Your task to perform on an android device: Empty the shopping cart on amazon.com. Add razer blackwidow to the cart on amazon.com, then select checkout. Image 0: 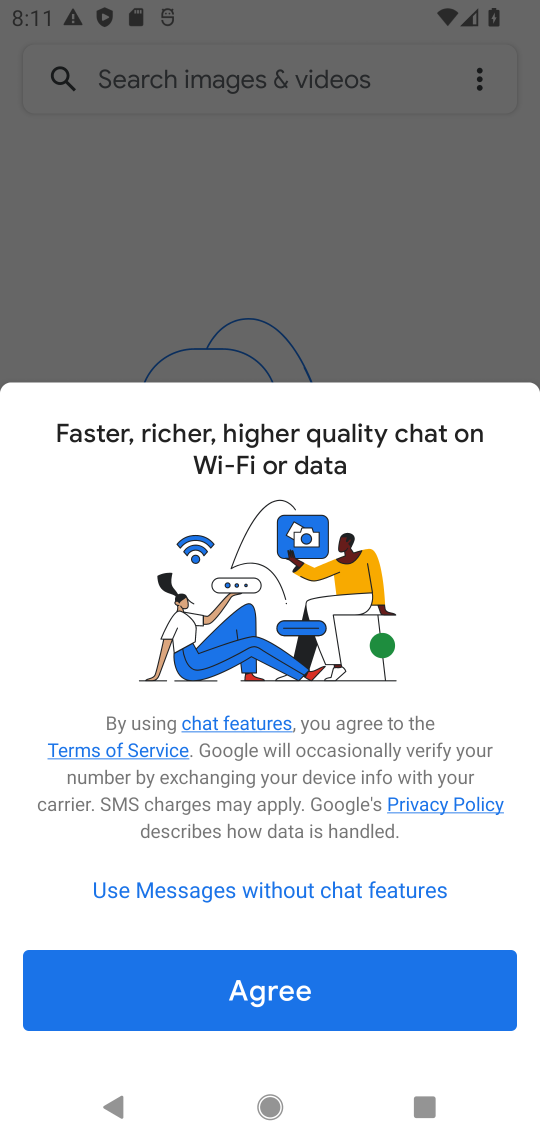
Step 0: press home button
Your task to perform on an android device: Empty the shopping cart on amazon.com. Add razer blackwidow to the cart on amazon.com, then select checkout. Image 1: 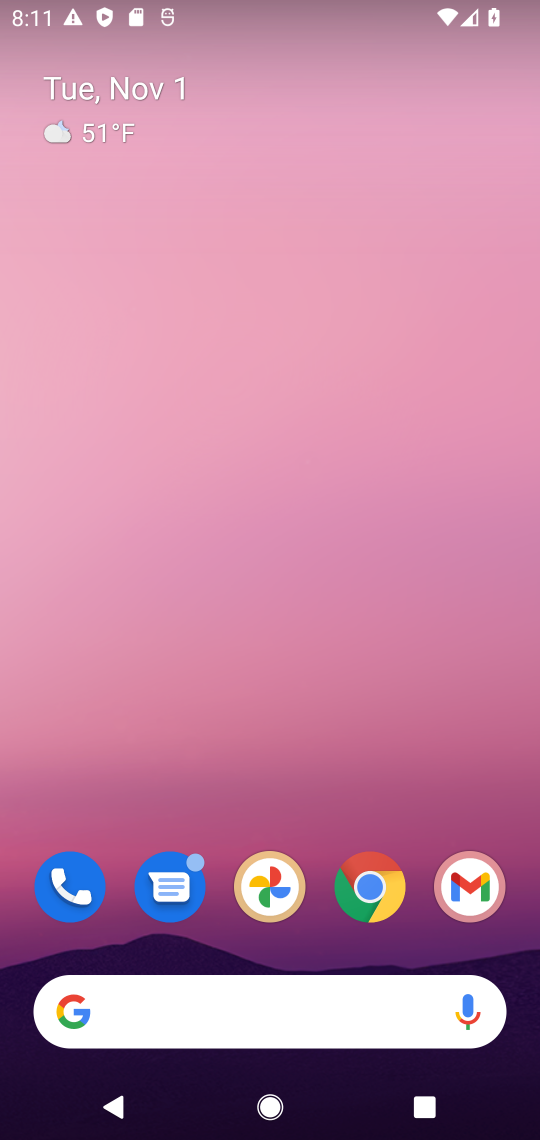
Step 1: drag from (260, 879) to (248, 209)
Your task to perform on an android device: Empty the shopping cart on amazon.com. Add razer blackwidow to the cart on amazon.com, then select checkout. Image 2: 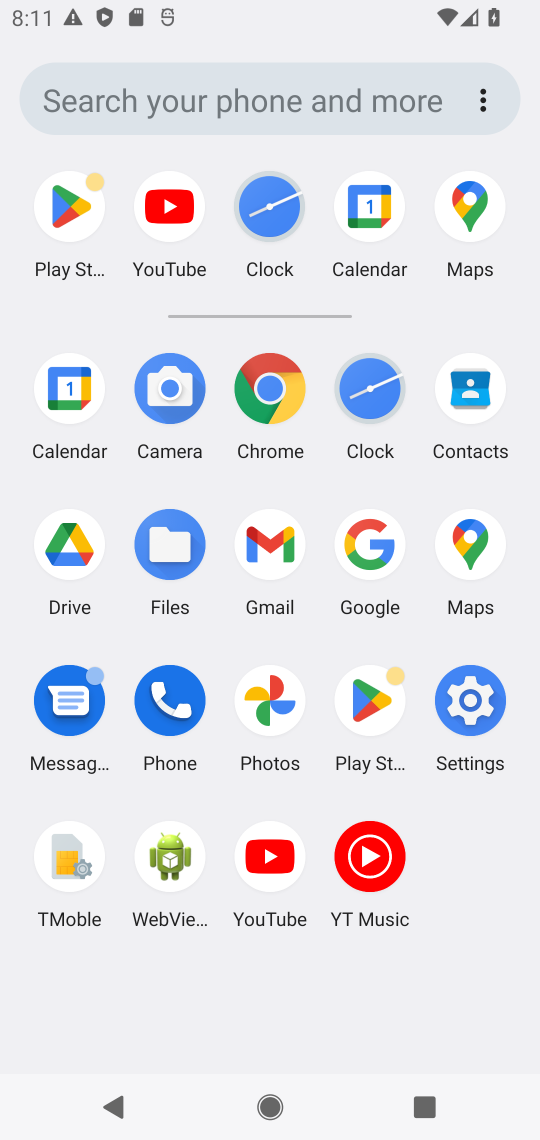
Step 2: click (373, 548)
Your task to perform on an android device: Empty the shopping cart on amazon.com. Add razer blackwidow to the cart on amazon.com, then select checkout. Image 3: 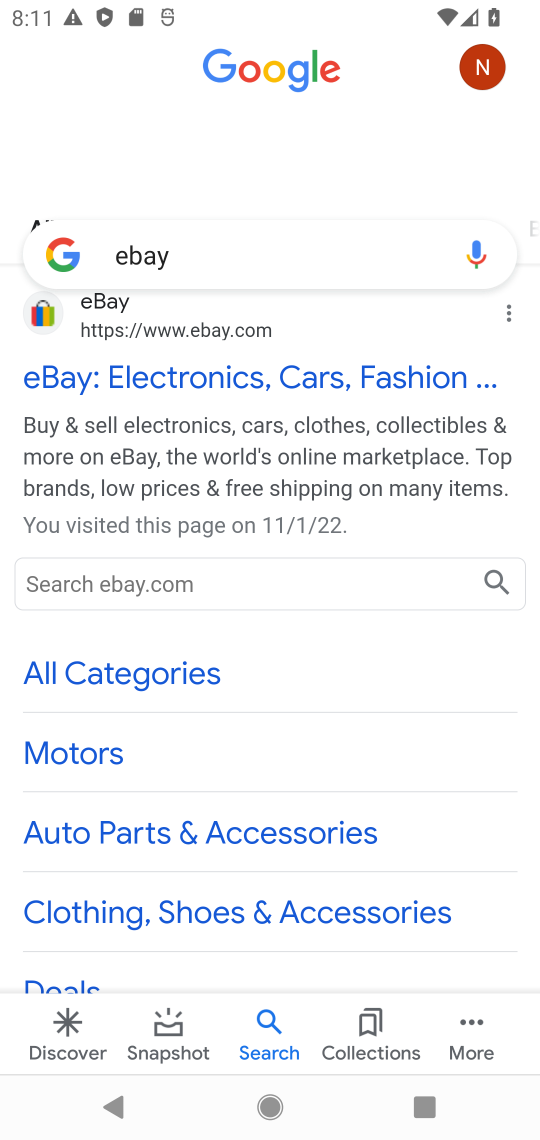
Step 3: click (234, 231)
Your task to perform on an android device: Empty the shopping cart on amazon.com. Add razer blackwidow to the cart on amazon.com, then select checkout. Image 4: 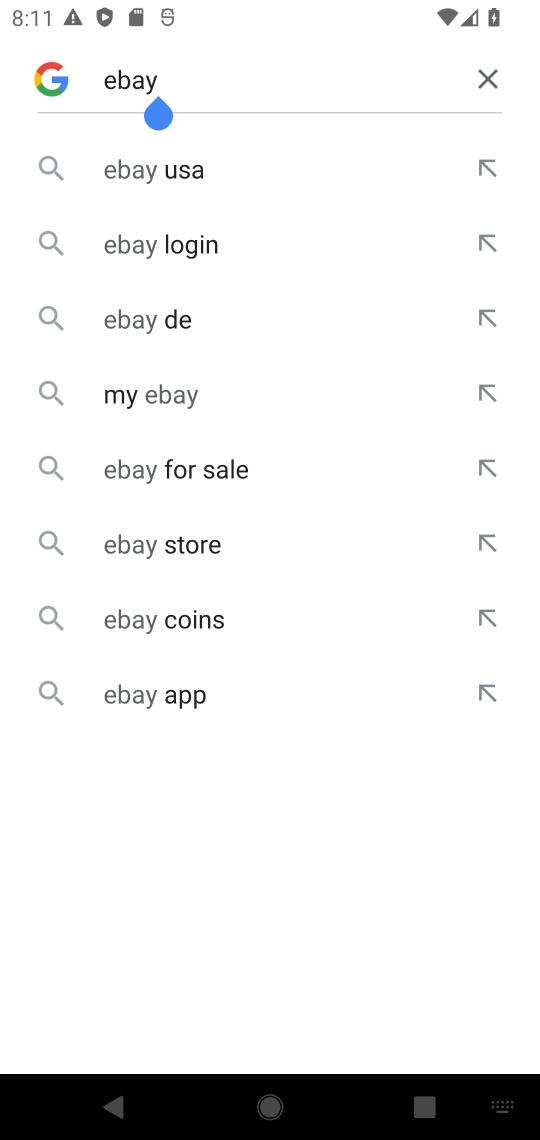
Step 4: click (473, 76)
Your task to perform on an android device: Empty the shopping cart on amazon.com. Add razer blackwidow to the cart on amazon.com, then select checkout. Image 5: 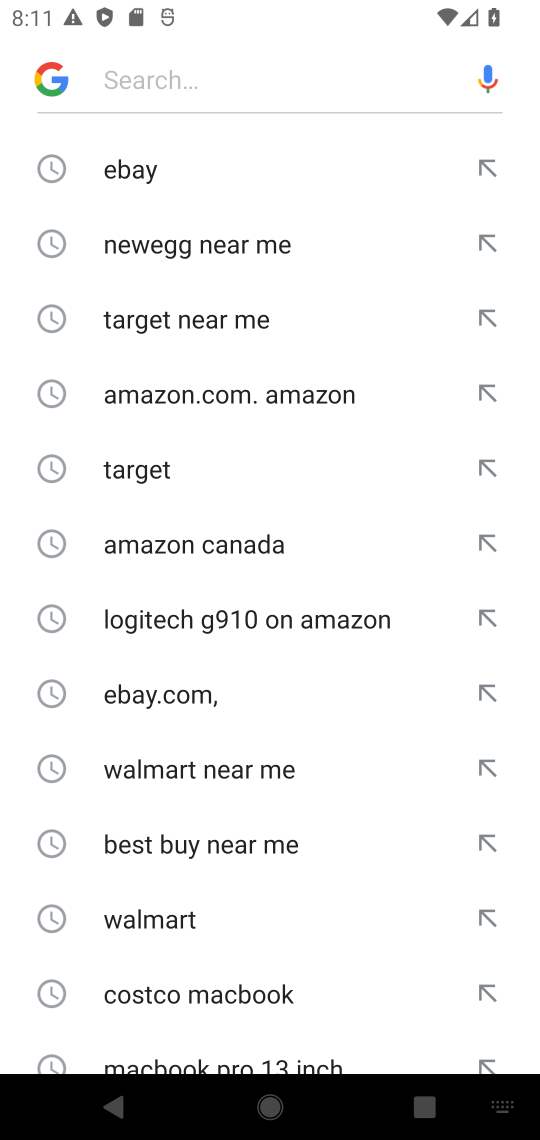
Step 5: click (188, 79)
Your task to perform on an android device: Empty the shopping cart on amazon.com. Add razer blackwidow to the cart on amazon.com, then select checkout. Image 6: 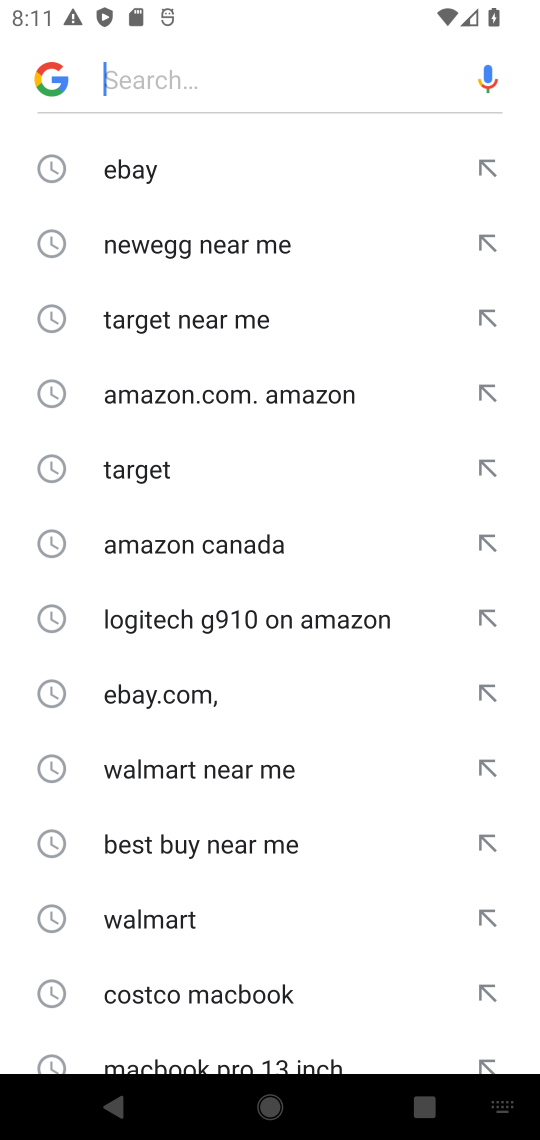
Step 6: type "amazon.com "
Your task to perform on an android device: Empty the shopping cart on amazon.com. Add razer blackwidow to the cart on amazon.com, then select checkout. Image 7: 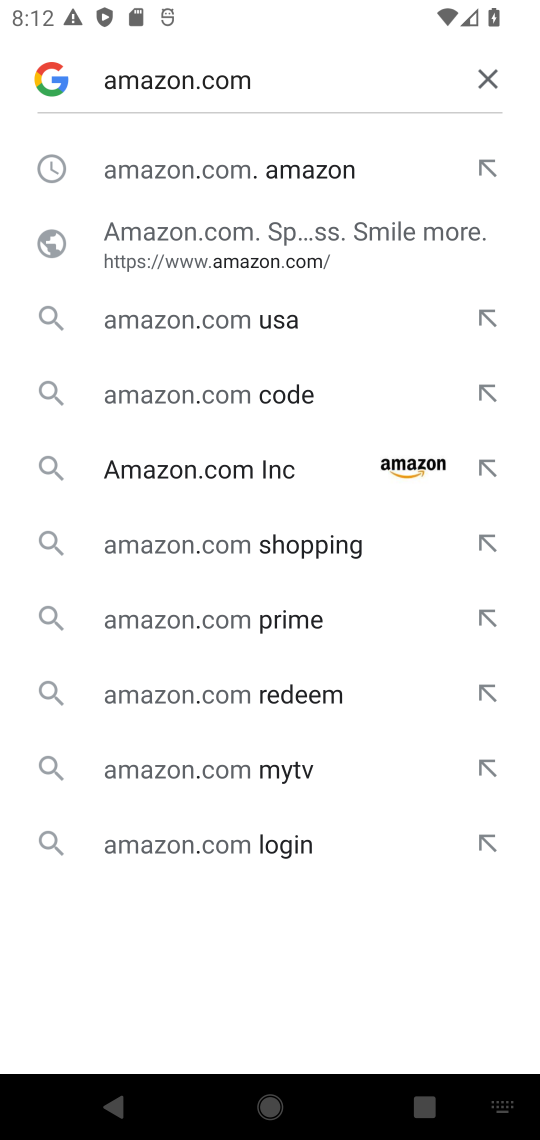
Step 7: click (181, 174)
Your task to perform on an android device: Empty the shopping cart on amazon.com. Add razer blackwidow to the cart on amazon.com, then select checkout. Image 8: 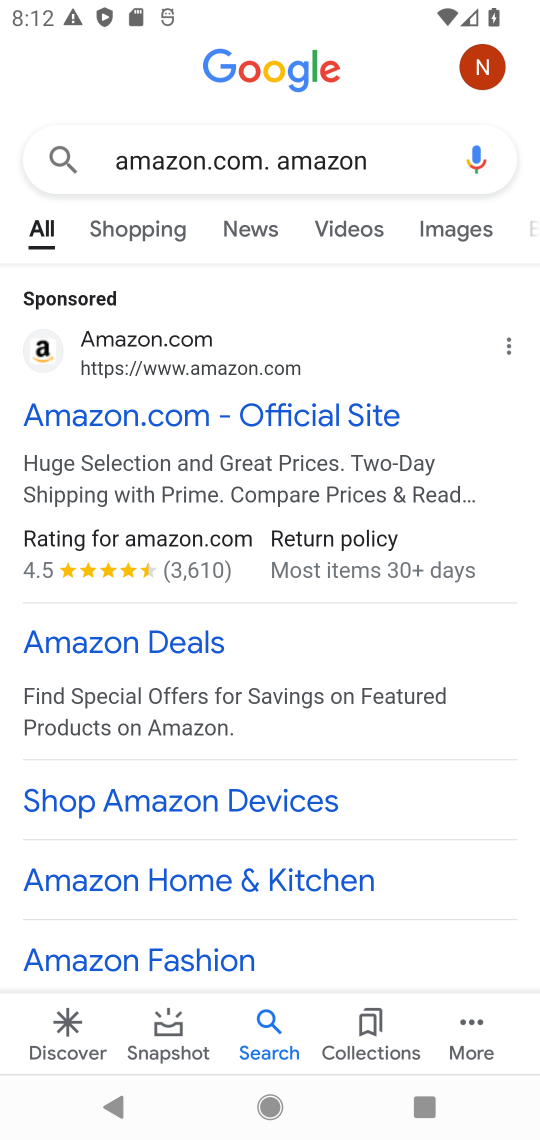
Step 8: click (201, 414)
Your task to perform on an android device: Empty the shopping cart on amazon.com. Add razer blackwidow to the cart on amazon.com, then select checkout. Image 9: 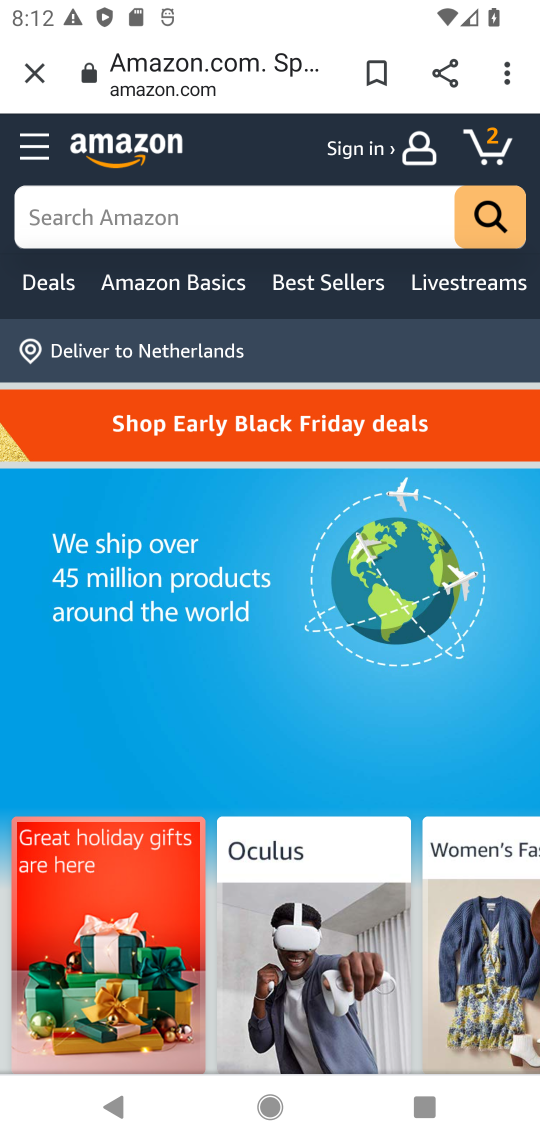
Step 9: click (199, 194)
Your task to perform on an android device: Empty the shopping cart on amazon.com. Add razer blackwidow to the cart on amazon.com, then select checkout. Image 10: 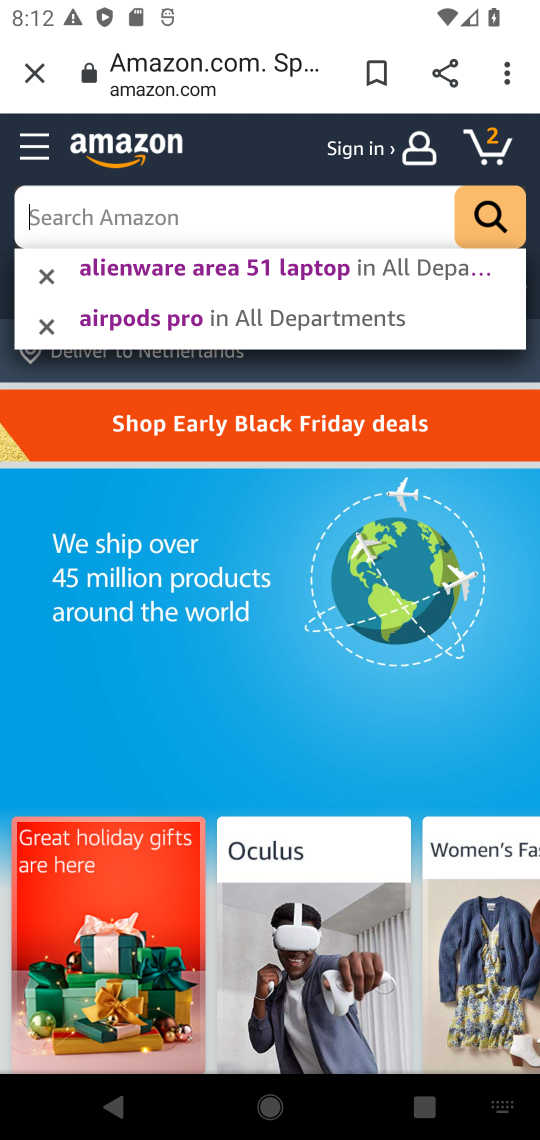
Step 10: type "razer blackwidow  "
Your task to perform on an android device: Empty the shopping cart on amazon.com. Add razer blackwidow to the cart on amazon.com, then select checkout. Image 11: 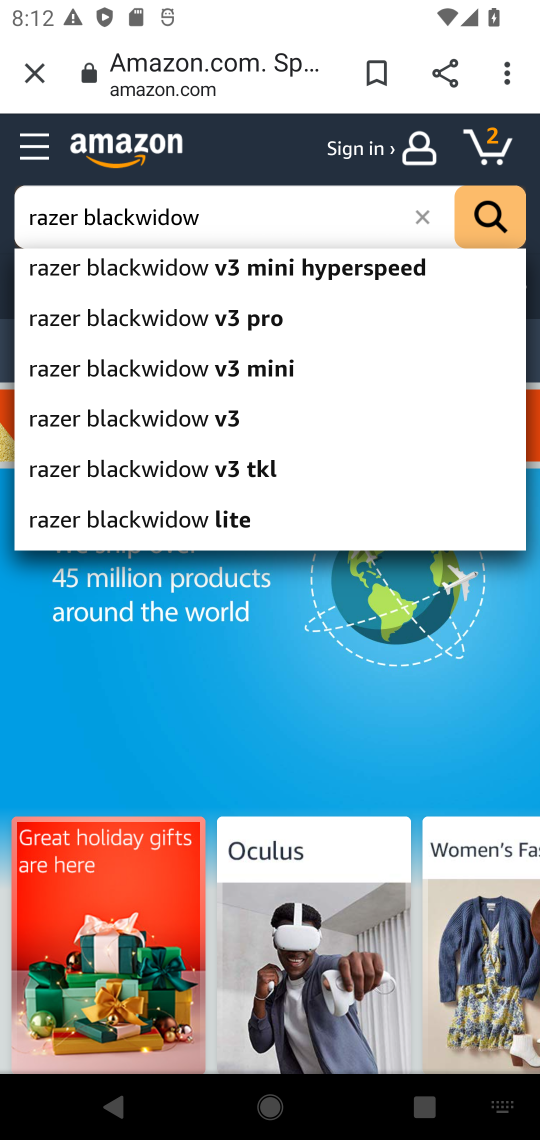
Step 11: click (291, 256)
Your task to perform on an android device: Empty the shopping cart on amazon.com. Add razer blackwidow to the cart on amazon.com, then select checkout. Image 12: 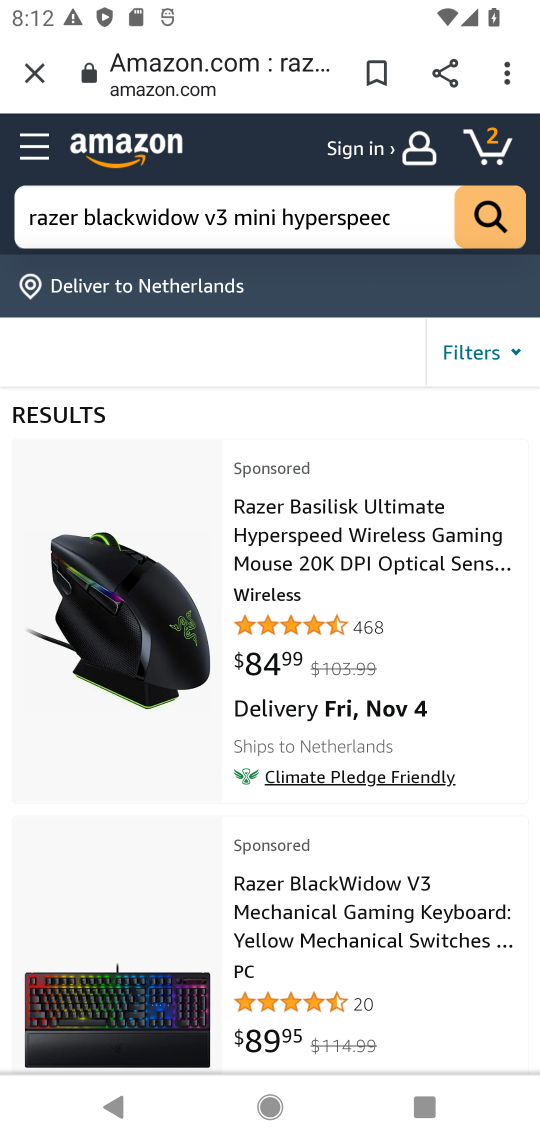
Step 12: drag from (326, 936) to (352, 800)
Your task to perform on an android device: Empty the shopping cart on amazon.com. Add razer blackwidow to the cart on amazon.com, then select checkout. Image 13: 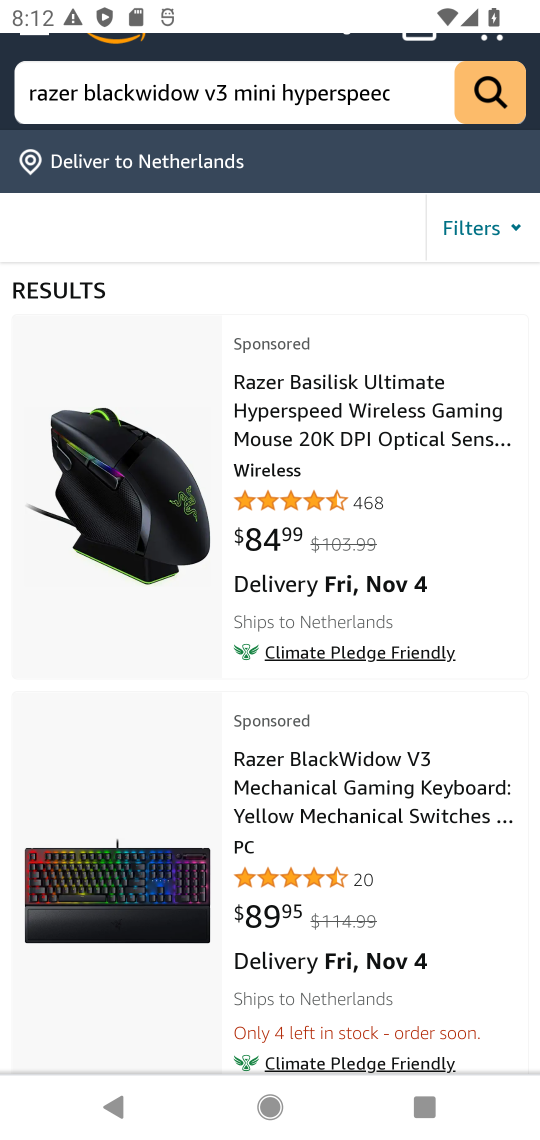
Step 13: click (289, 757)
Your task to perform on an android device: Empty the shopping cart on amazon.com. Add razer blackwidow to the cart on amazon.com, then select checkout. Image 14: 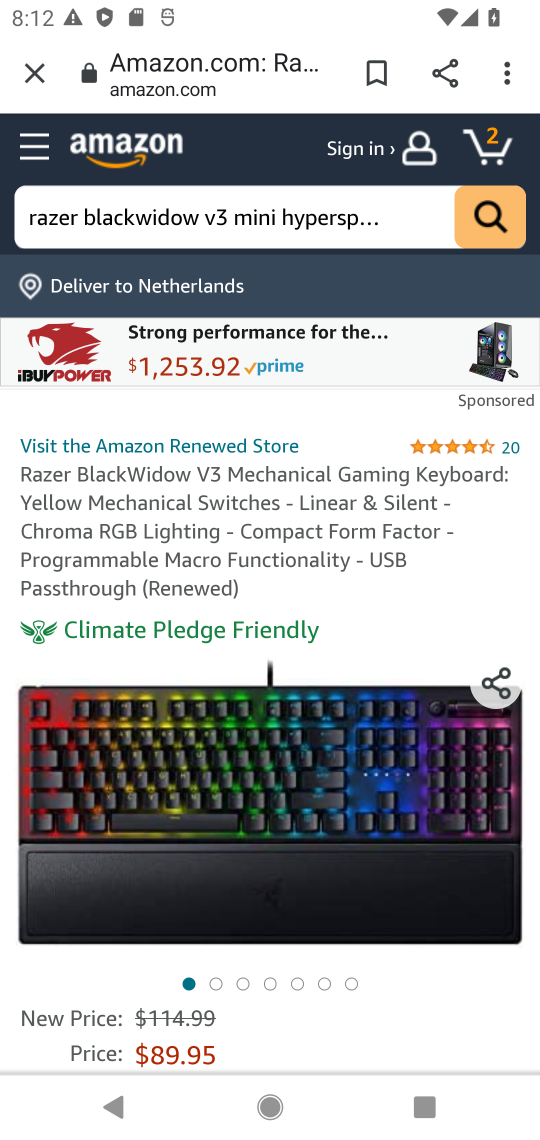
Step 14: drag from (272, 985) to (295, 437)
Your task to perform on an android device: Empty the shopping cart on amazon.com. Add razer blackwidow to the cart on amazon.com, then select checkout. Image 15: 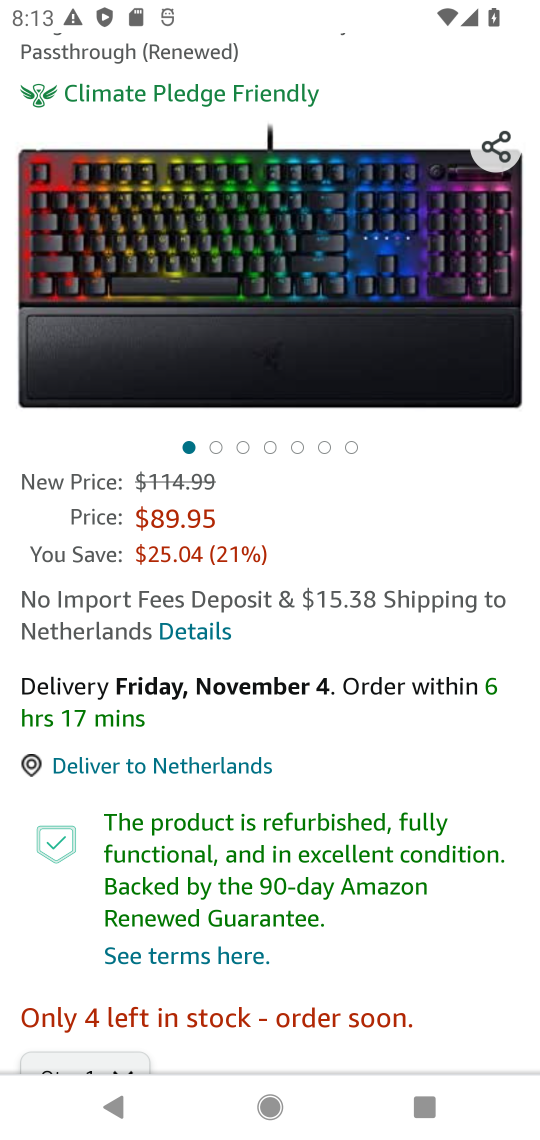
Step 15: drag from (214, 970) to (251, 392)
Your task to perform on an android device: Empty the shopping cart on amazon.com. Add razer blackwidow to the cart on amazon.com, then select checkout. Image 16: 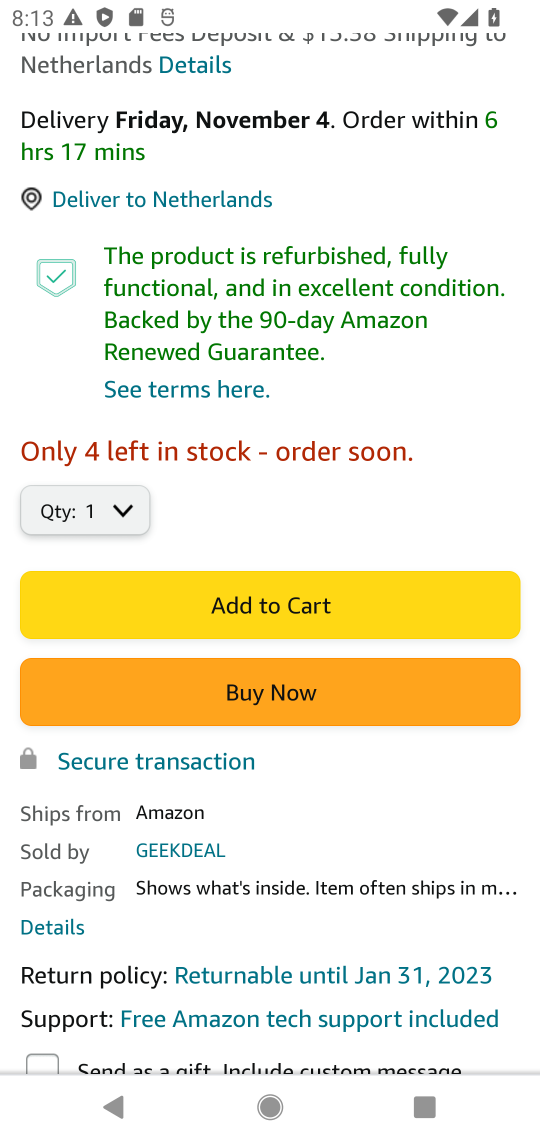
Step 16: click (292, 612)
Your task to perform on an android device: Empty the shopping cart on amazon.com. Add razer blackwidow to the cart on amazon.com, then select checkout. Image 17: 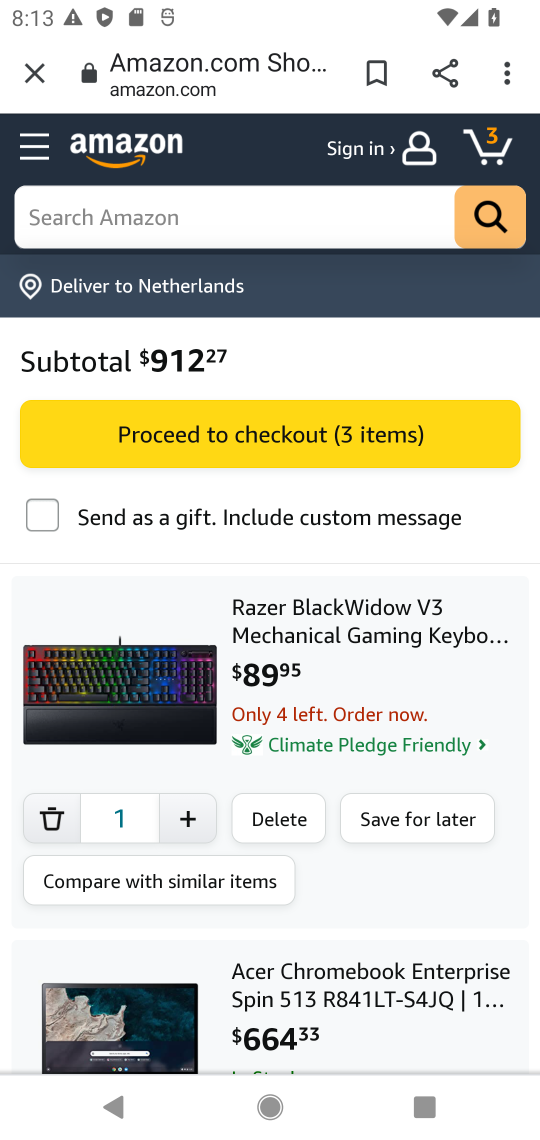
Step 17: task complete